Your task to perform on an android device: open chrome privacy settings Image 0: 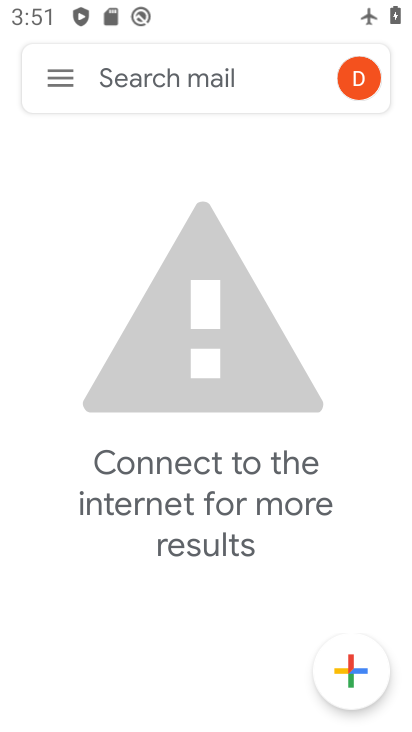
Step 0: press home button
Your task to perform on an android device: open chrome privacy settings Image 1: 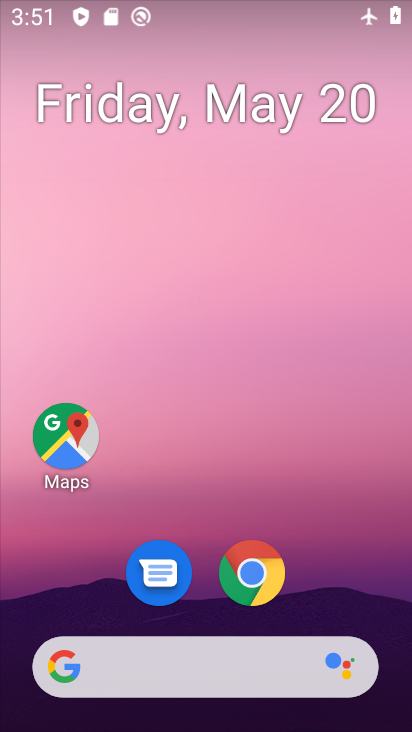
Step 1: drag from (364, 614) to (309, 236)
Your task to perform on an android device: open chrome privacy settings Image 2: 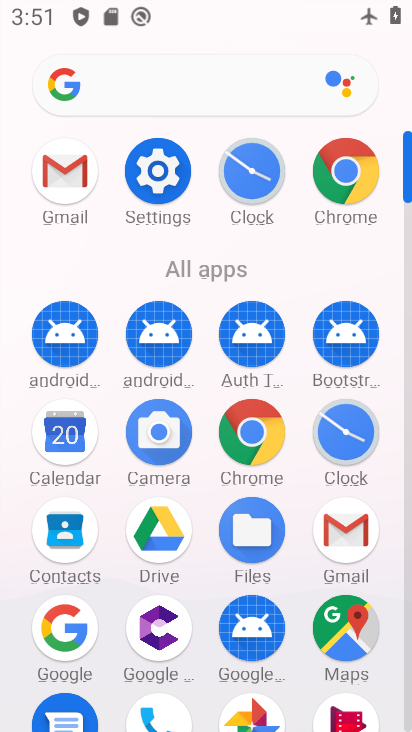
Step 2: click (165, 176)
Your task to perform on an android device: open chrome privacy settings Image 3: 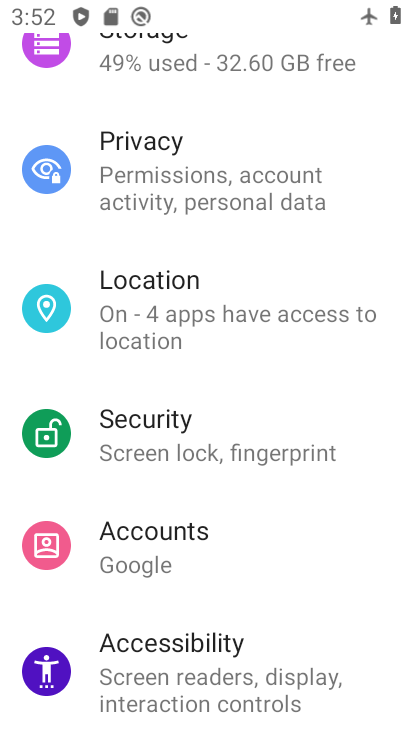
Step 3: click (235, 181)
Your task to perform on an android device: open chrome privacy settings Image 4: 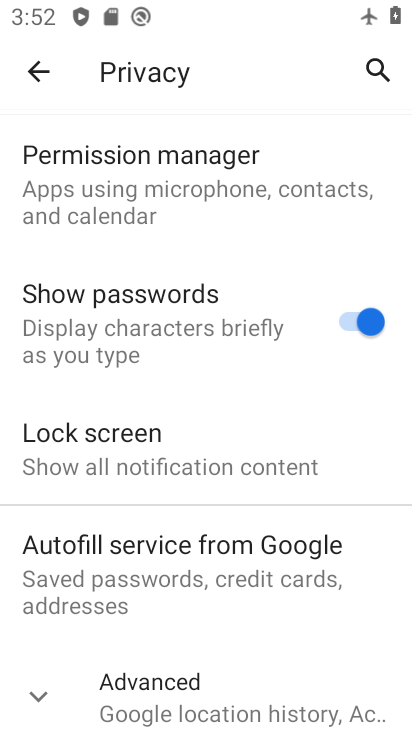
Step 4: task complete